Your task to perform on an android device: Open Google Chrome and click the shortcut for Amazon.com Image 0: 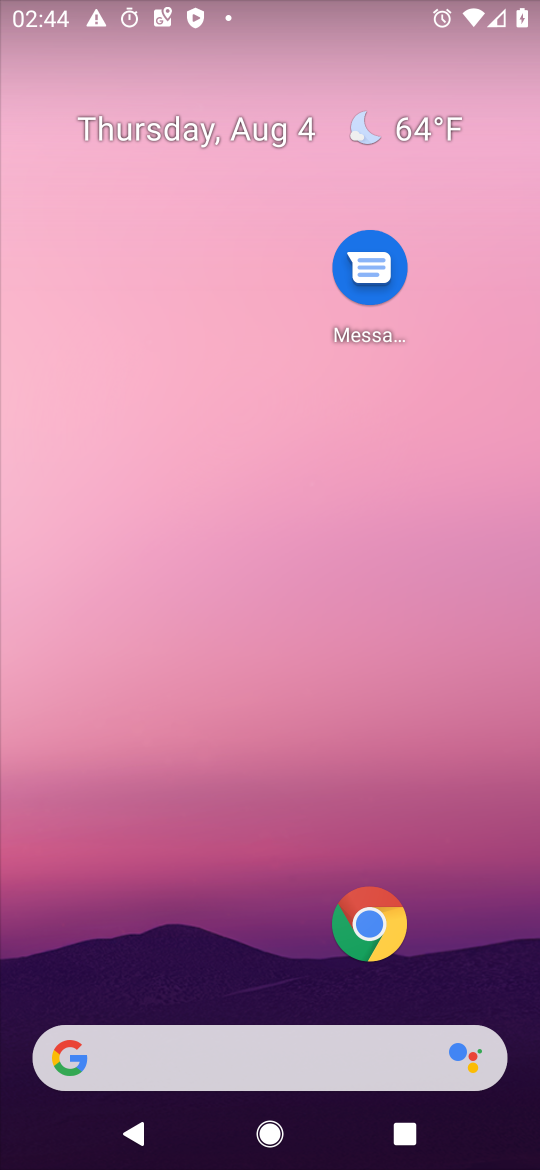
Step 0: click (363, 930)
Your task to perform on an android device: Open Google Chrome and click the shortcut for Amazon.com Image 1: 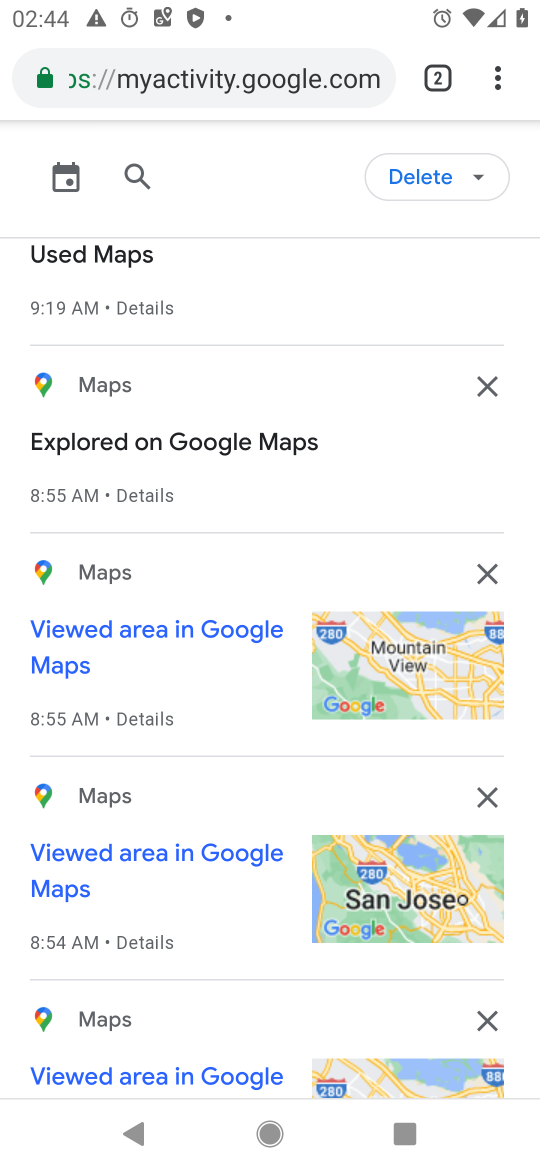
Step 1: click (435, 83)
Your task to perform on an android device: Open Google Chrome and click the shortcut for Amazon.com Image 2: 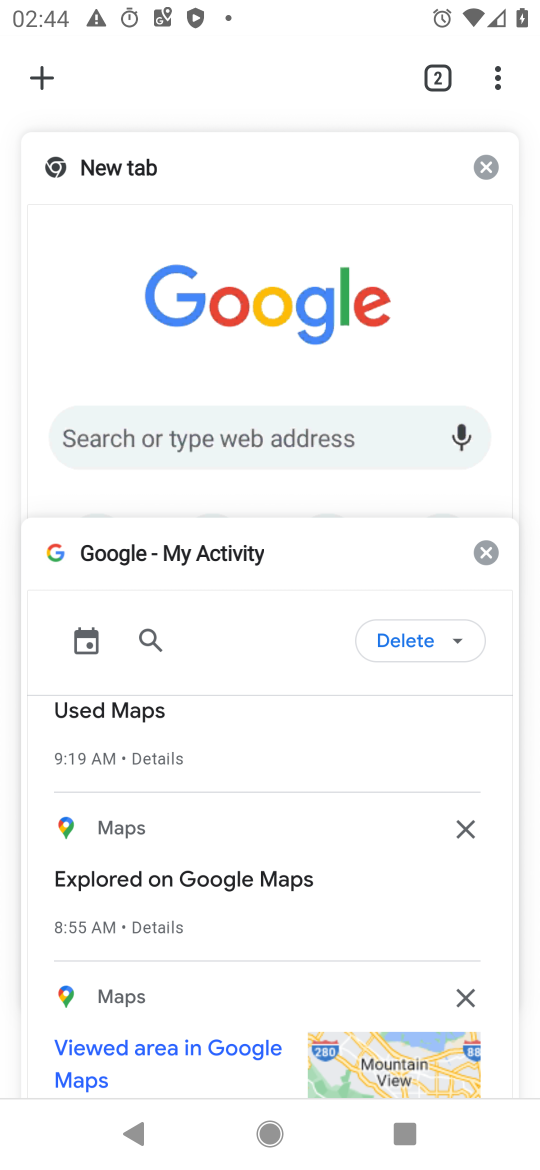
Step 2: click (45, 79)
Your task to perform on an android device: Open Google Chrome and click the shortcut for Amazon.com Image 3: 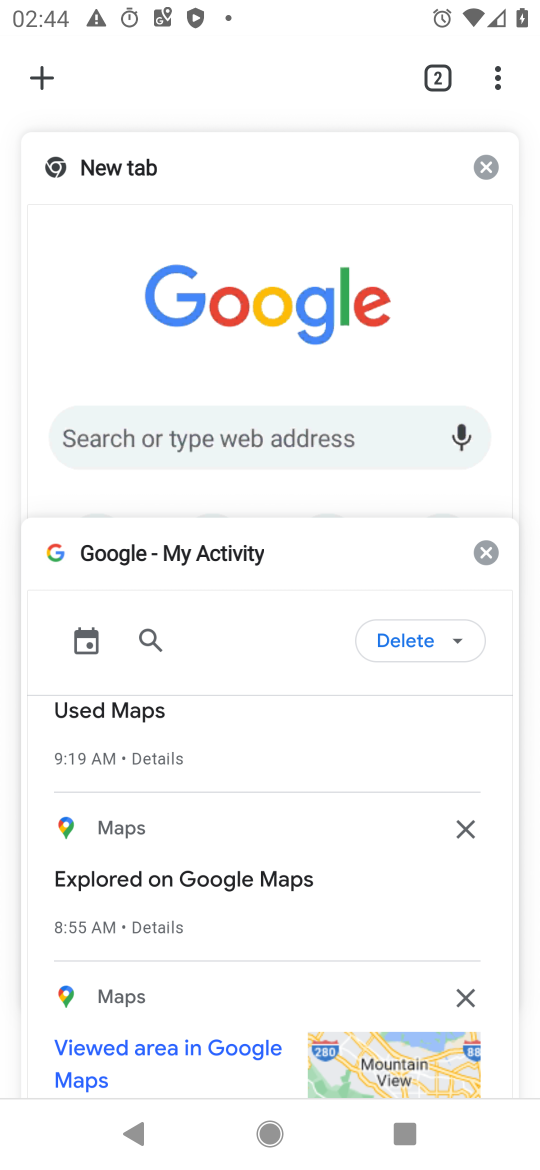
Step 3: click (42, 47)
Your task to perform on an android device: Open Google Chrome and click the shortcut for Amazon.com Image 4: 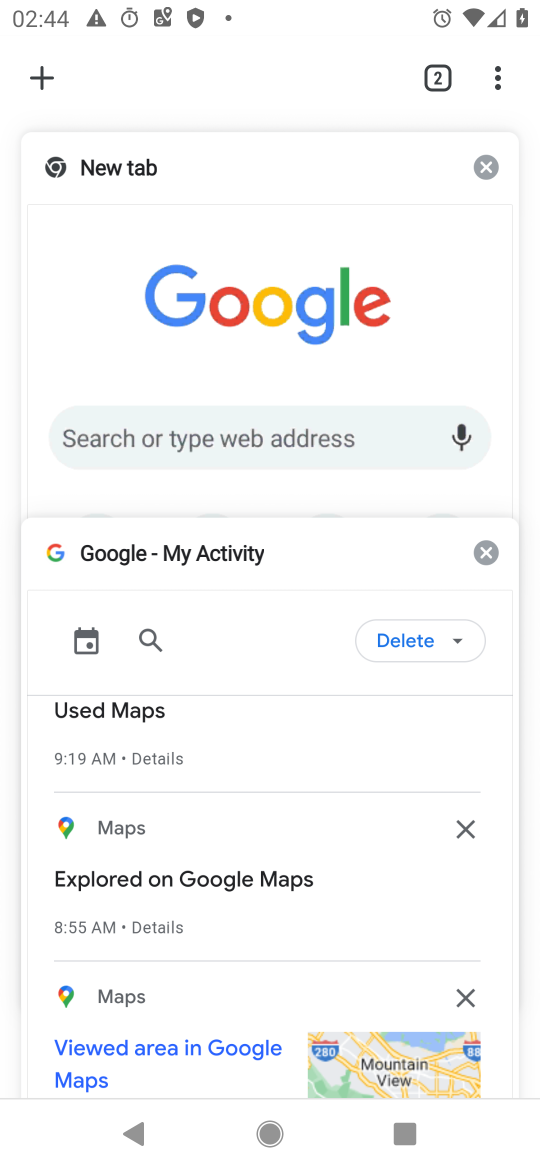
Step 4: click (29, 80)
Your task to perform on an android device: Open Google Chrome and click the shortcut for Amazon.com Image 5: 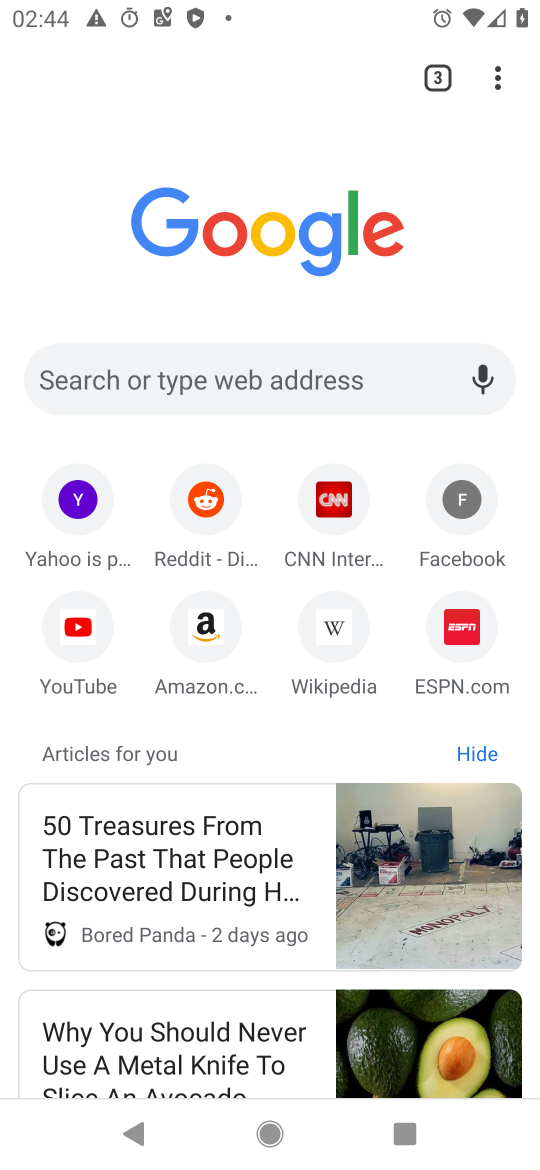
Step 5: click (193, 632)
Your task to perform on an android device: Open Google Chrome and click the shortcut for Amazon.com Image 6: 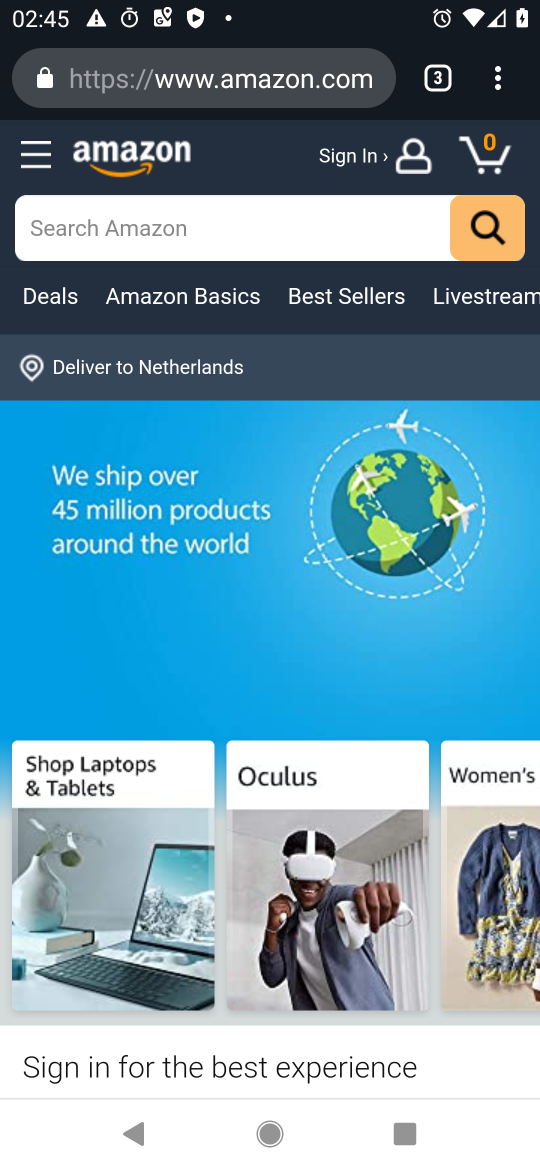
Step 6: task complete